Your task to perform on an android device: find snoozed emails in the gmail app Image 0: 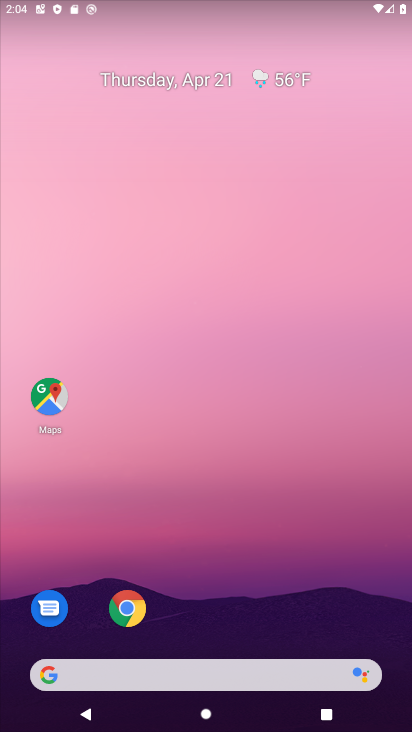
Step 0: drag from (249, 592) to (195, 146)
Your task to perform on an android device: find snoozed emails in the gmail app Image 1: 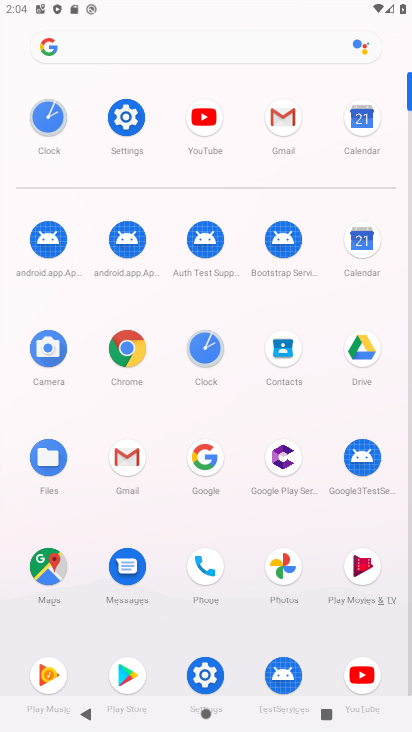
Step 1: click (120, 459)
Your task to perform on an android device: find snoozed emails in the gmail app Image 2: 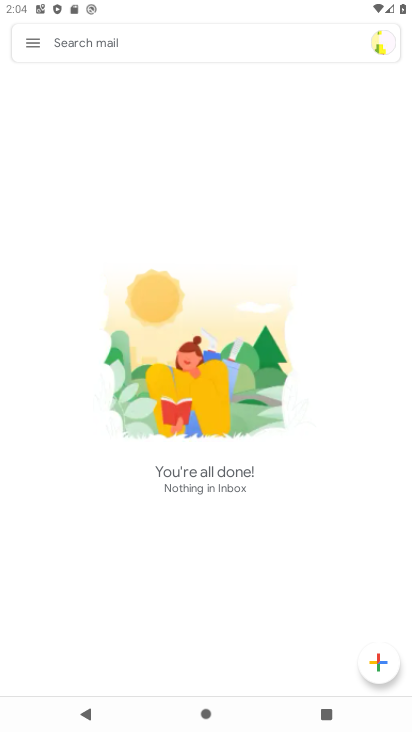
Step 2: click (31, 40)
Your task to perform on an android device: find snoozed emails in the gmail app Image 3: 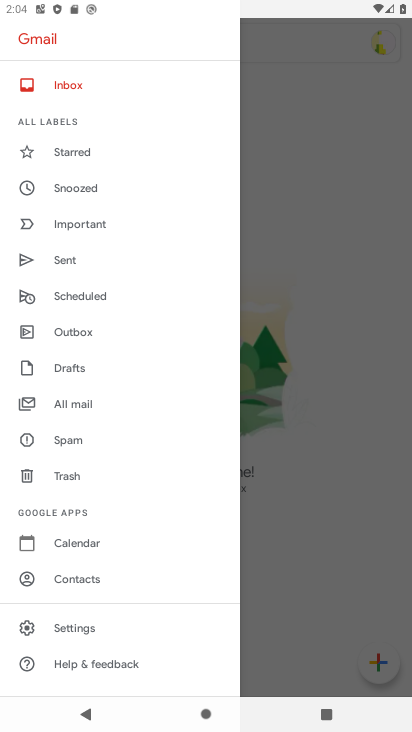
Step 3: click (87, 186)
Your task to perform on an android device: find snoozed emails in the gmail app Image 4: 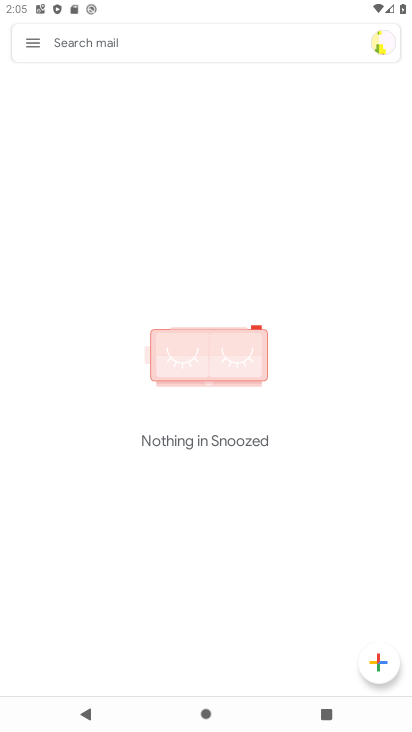
Step 4: task complete